Your task to perform on an android device: turn off translation in the chrome app Image 0: 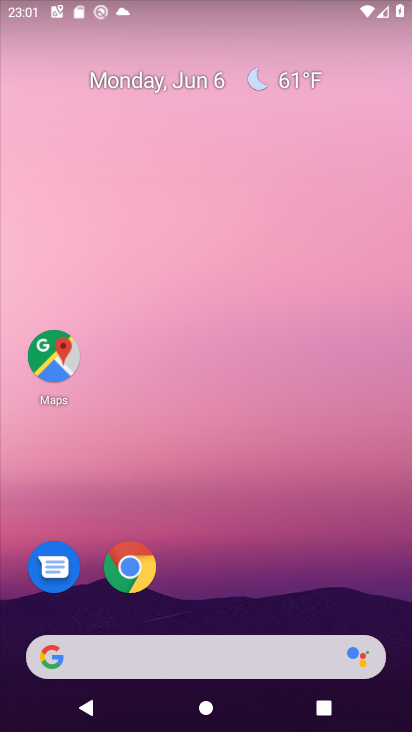
Step 0: click (133, 572)
Your task to perform on an android device: turn off translation in the chrome app Image 1: 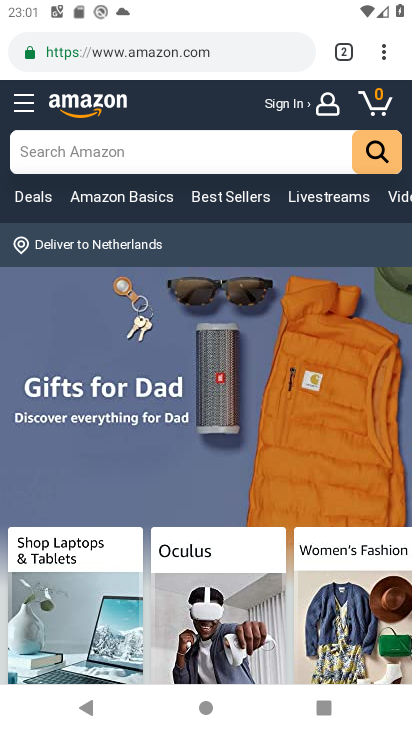
Step 1: click (383, 58)
Your task to perform on an android device: turn off translation in the chrome app Image 2: 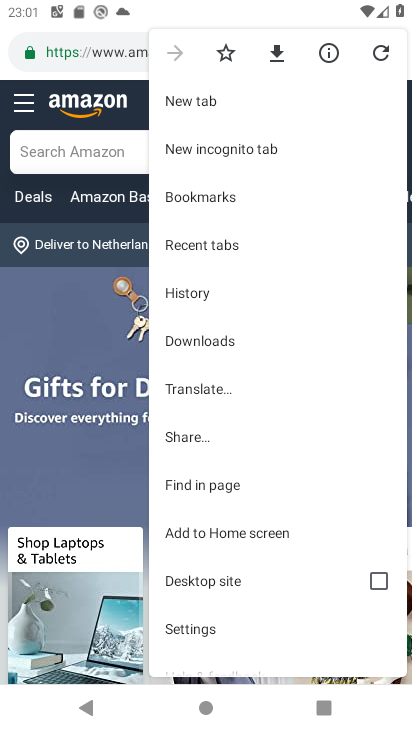
Step 2: click (190, 631)
Your task to perform on an android device: turn off translation in the chrome app Image 3: 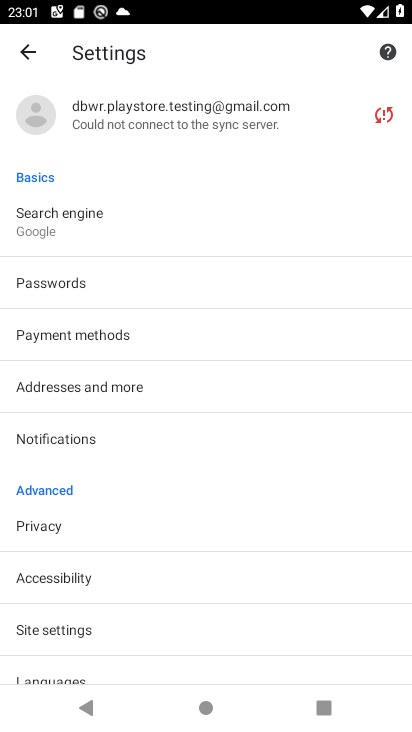
Step 3: click (51, 674)
Your task to perform on an android device: turn off translation in the chrome app Image 4: 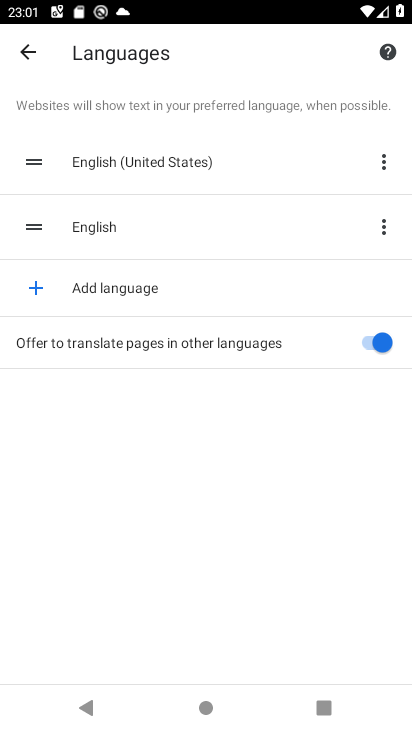
Step 4: click (366, 340)
Your task to perform on an android device: turn off translation in the chrome app Image 5: 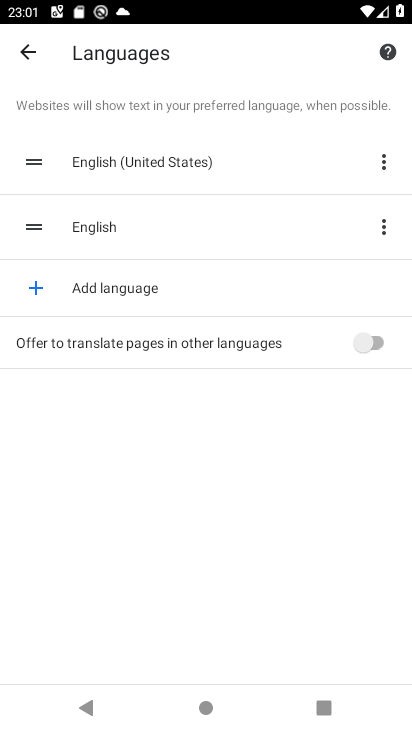
Step 5: task complete